Your task to perform on an android device: see tabs open on other devices in the chrome app Image 0: 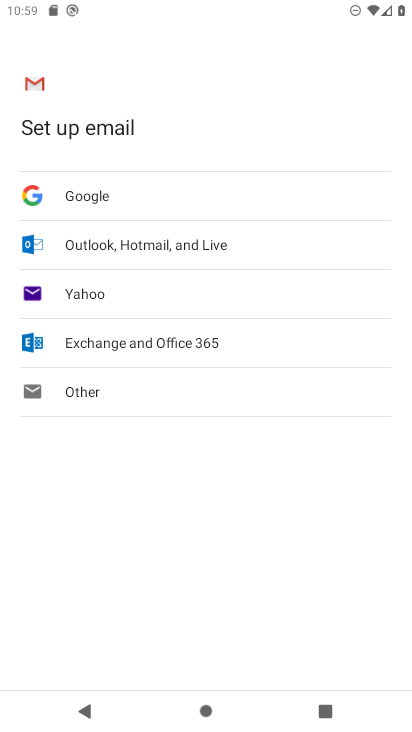
Step 0: press home button
Your task to perform on an android device: see tabs open on other devices in the chrome app Image 1: 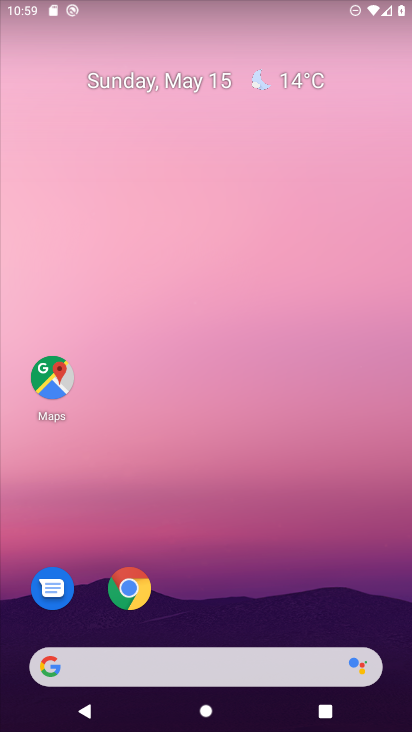
Step 1: drag from (252, 605) to (321, 108)
Your task to perform on an android device: see tabs open on other devices in the chrome app Image 2: 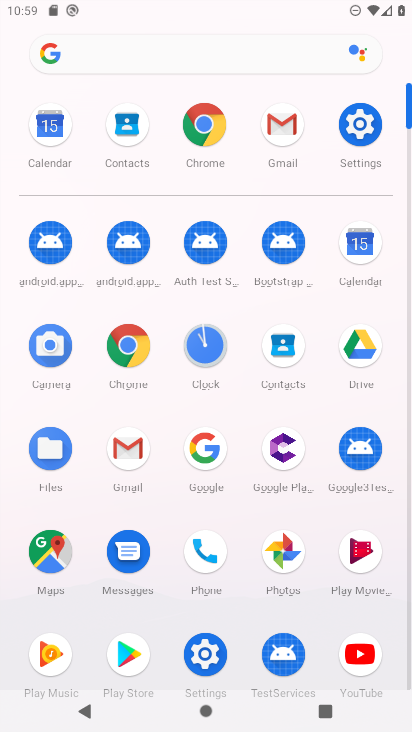
Step 2: click (128, 358)
Your task to perform on an android device: see tabs open on other devices in the chrome app Image 3: 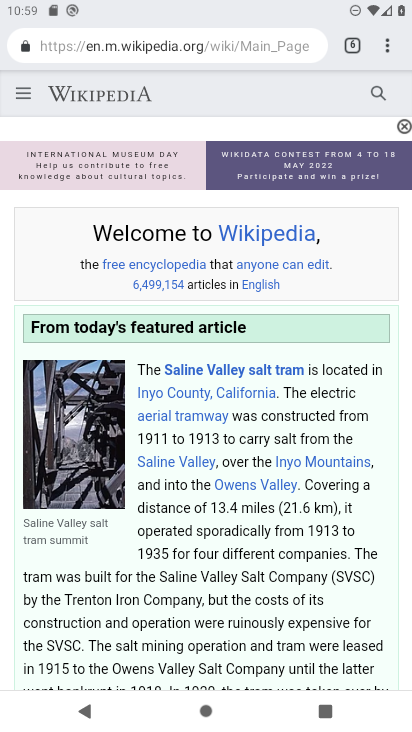
Step 3: click (387, 56)
Your task to perform on an android device: see tabs open on other devices in the chrome app Image 4: 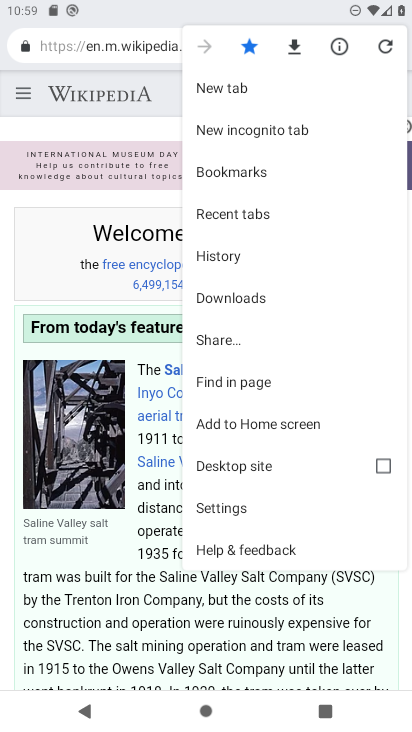
Step 4: click (235, 210)
Your task to perform on an android device: see tabs open on other devices in the chrome app Image 5: 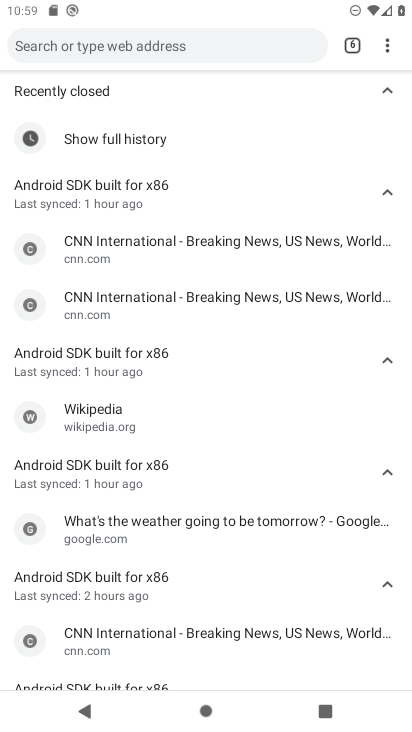
Step 5: task complete